Your task to perform on an android device: Open Maps and search for coffee Image 0: 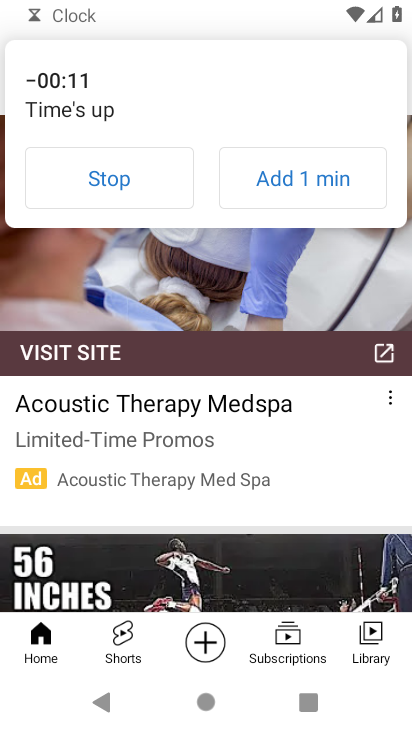
Step 0: drag from (194, 466) to (254, 128)
Your task to perform on an android device: Open Maps and search for coffee Image 1: 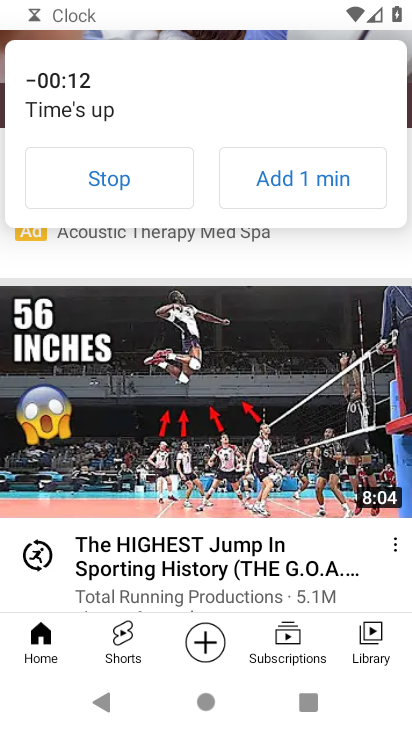
Step 1: click (115, 160)
Your task to perform on an android device: Open Maps and search for coffee Image 2: 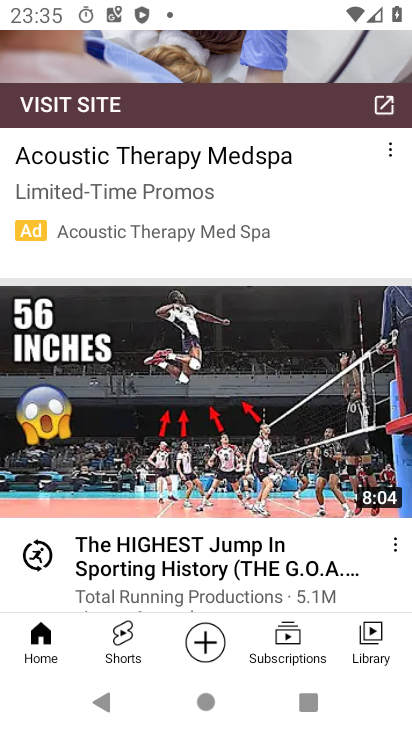
Step 2: drag from (226, 549) to (351, 215)
Your task to perform on an android device: Open Maps and search for coffee Image 3: 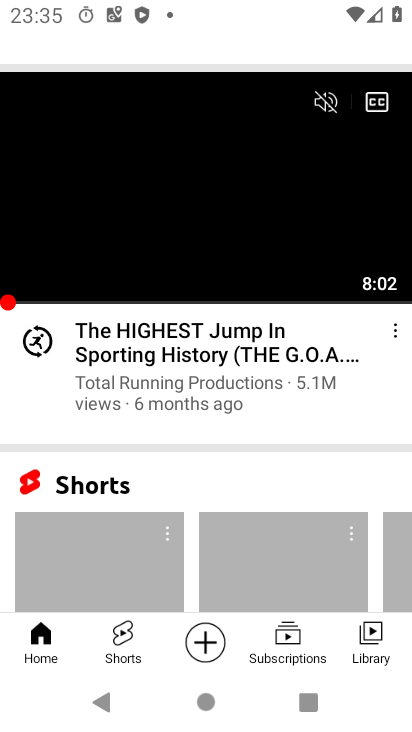
Step 3: press home button
Your task to perform on an android device: Open Maps and search for coffee Image 4: 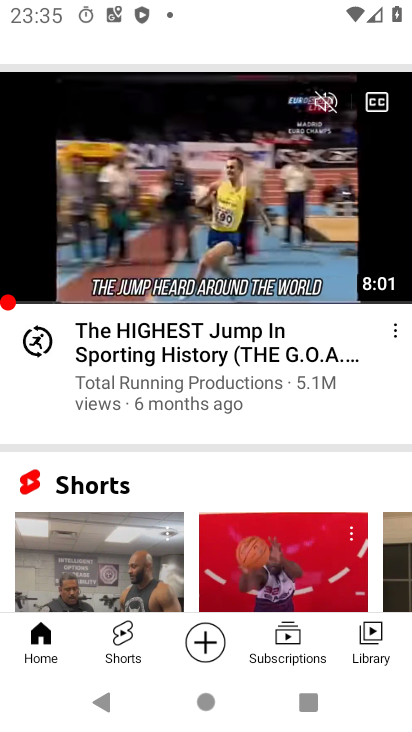
Step 4: drag from (185, 543) to (231, 81)
Your task to perform on an android device: Open Maps and search for coffee Image 5: 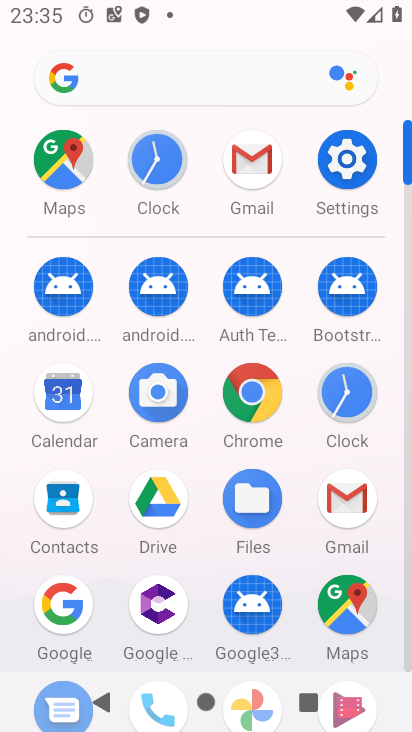
Step 5: click (130, 68)
Your task to perform on an android device: Open Maps and search for coffee Image 6: 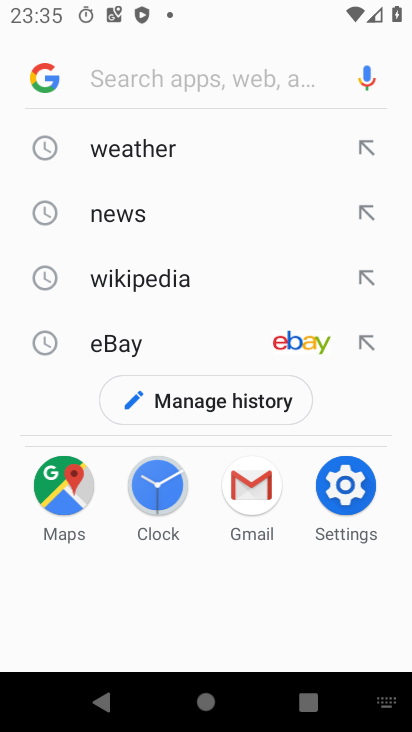
Step 6: press home button
Your task to perform on an android device: Open Maps and search for coffee Image 7: 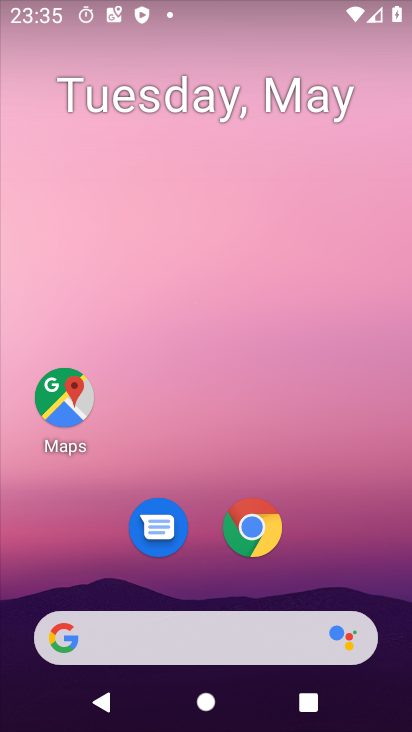
Step 7: click (407, 132)
Your task to perform on an android device: Open Maps and search for coffee Image 8: 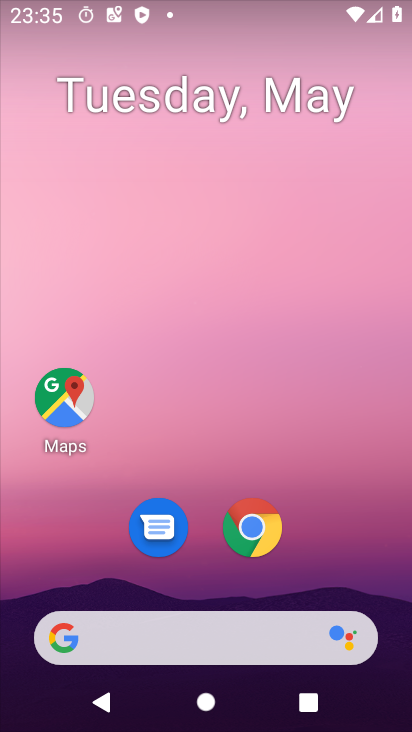
Step 8: drag from (197, 562) to (197, 130)
Your task to perform on an android device: Open Maps and search for coffee Image 9: 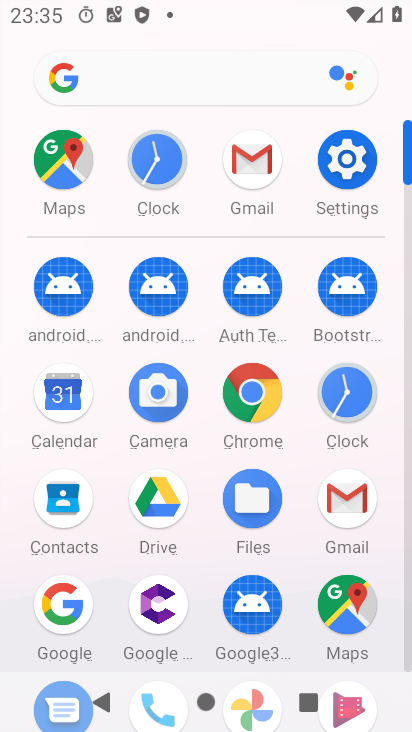
Step 9: click (326, 627)
Your task to perform on an android device: Open Maps and search for coffee Image 10: 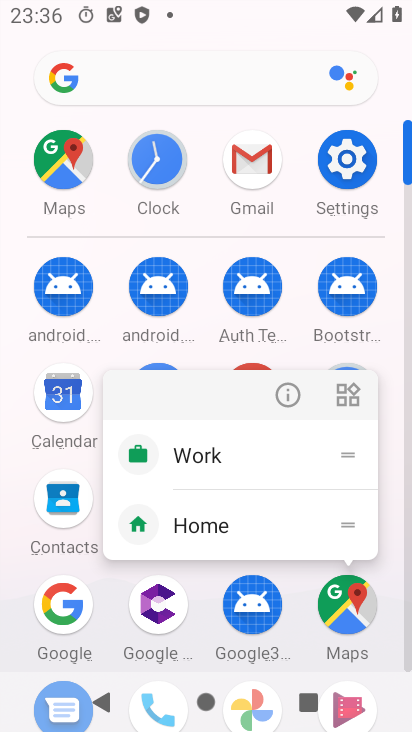
Step 10: click (281, 391)
Your task to perform on an android device: Open Maps and search for coffee Image 11: 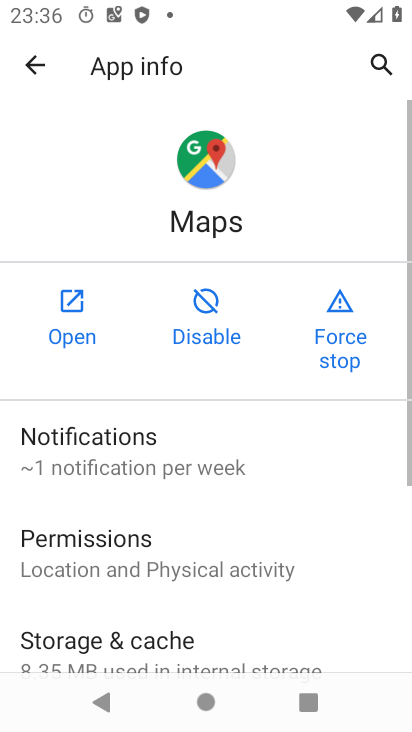
Step 11: click (76, 299)
Your task to perform on an android device: Open Maps and search for coffee Image 12: 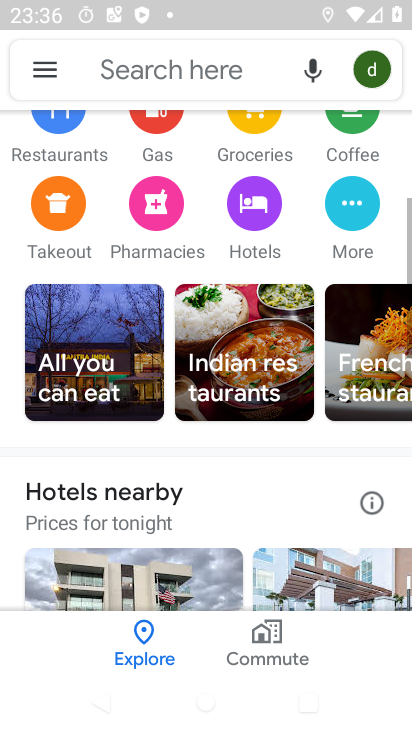
Step 12: click (194, 48)
Your task to perform on an android device: Open Maps and search for coffee Image 13: 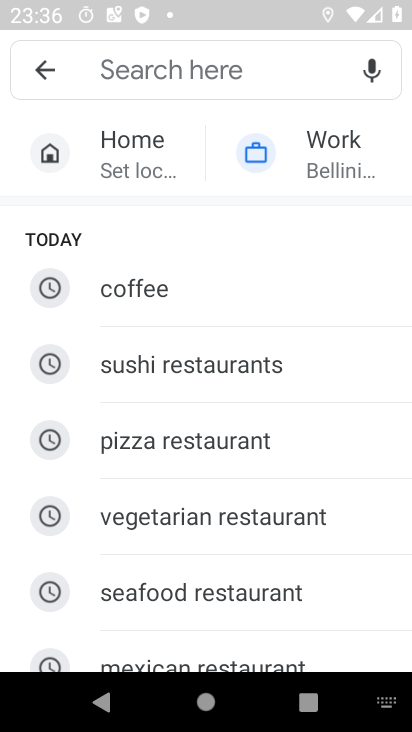
Step 13: click (148, 272)
Your task to perform on an android device: Open Maps and search for coffee Image 14: 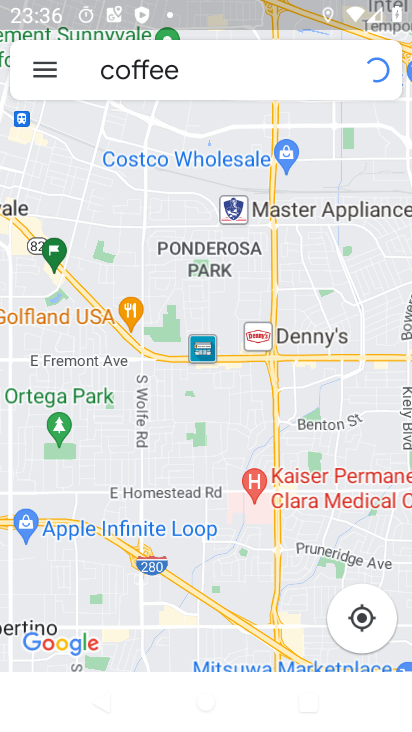
Step 14: task complete